Your task to perform on an android device: What's on my calendar tomorrow? Image 0: 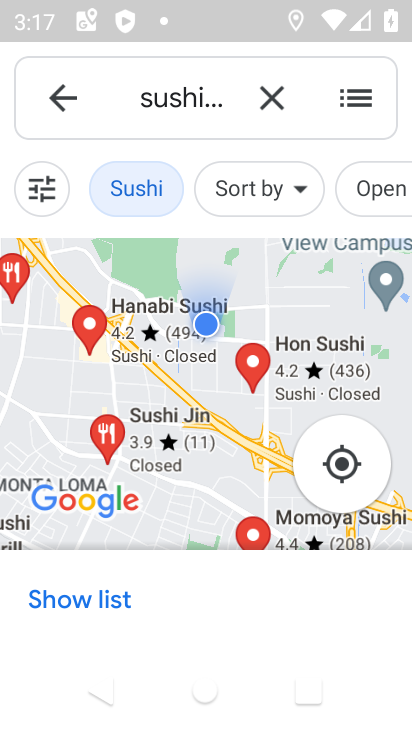
Step 0: press home button
Your task to perform on an android device: What's on my calendar tomorrow? Image 1: 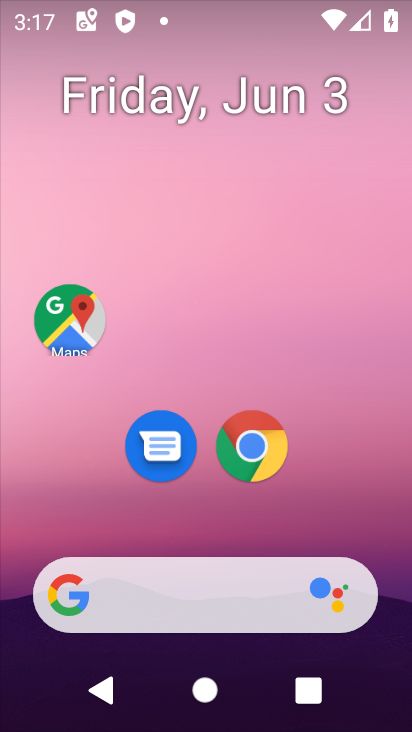
Step 1: drag from (372, 521) to (224, 90)
Your task to perform on an android device: What's on my calendar tomorrow? Image 2: 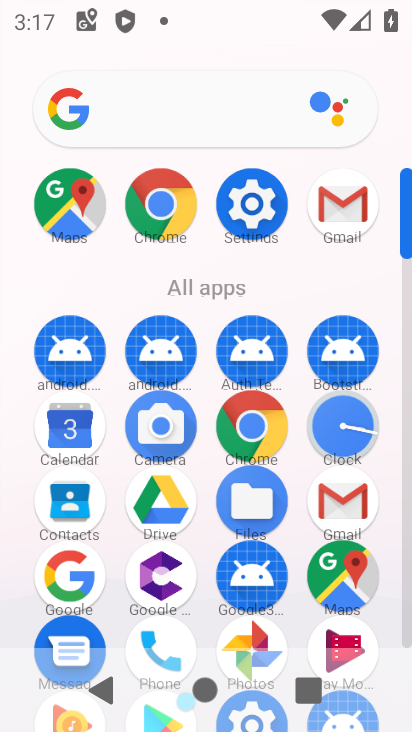
Step 2: click (77, 417)
Your task to perform on an android device: What's on my calendar tomorrow? Image 3: 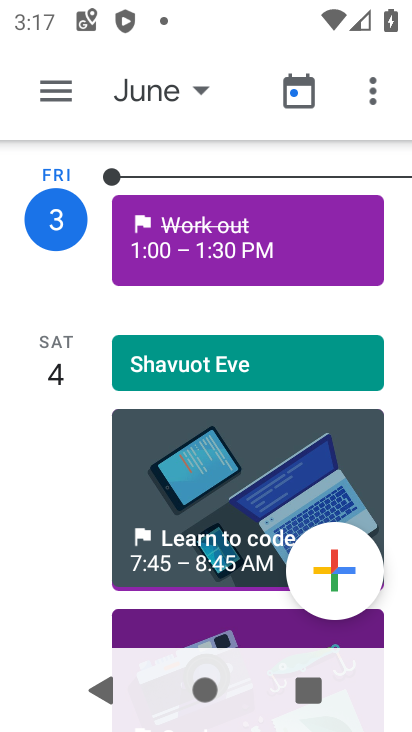
Step 3: task complete